Your task to perform on an android device: turn on showing notifications on the lock screen Image 0: 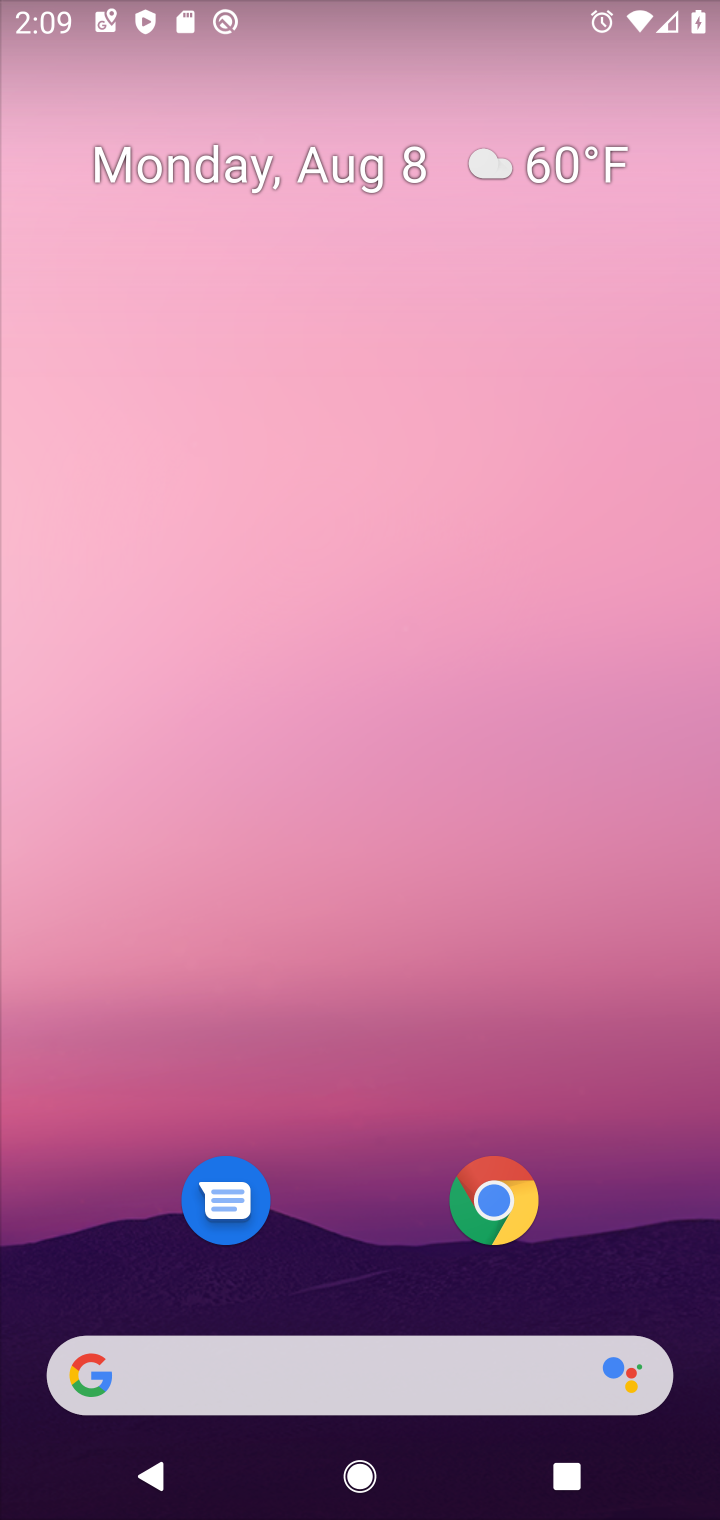
Step 0: press home button
Your task to perform on an android device: turn on showing notifications on the lock screen Image 1: 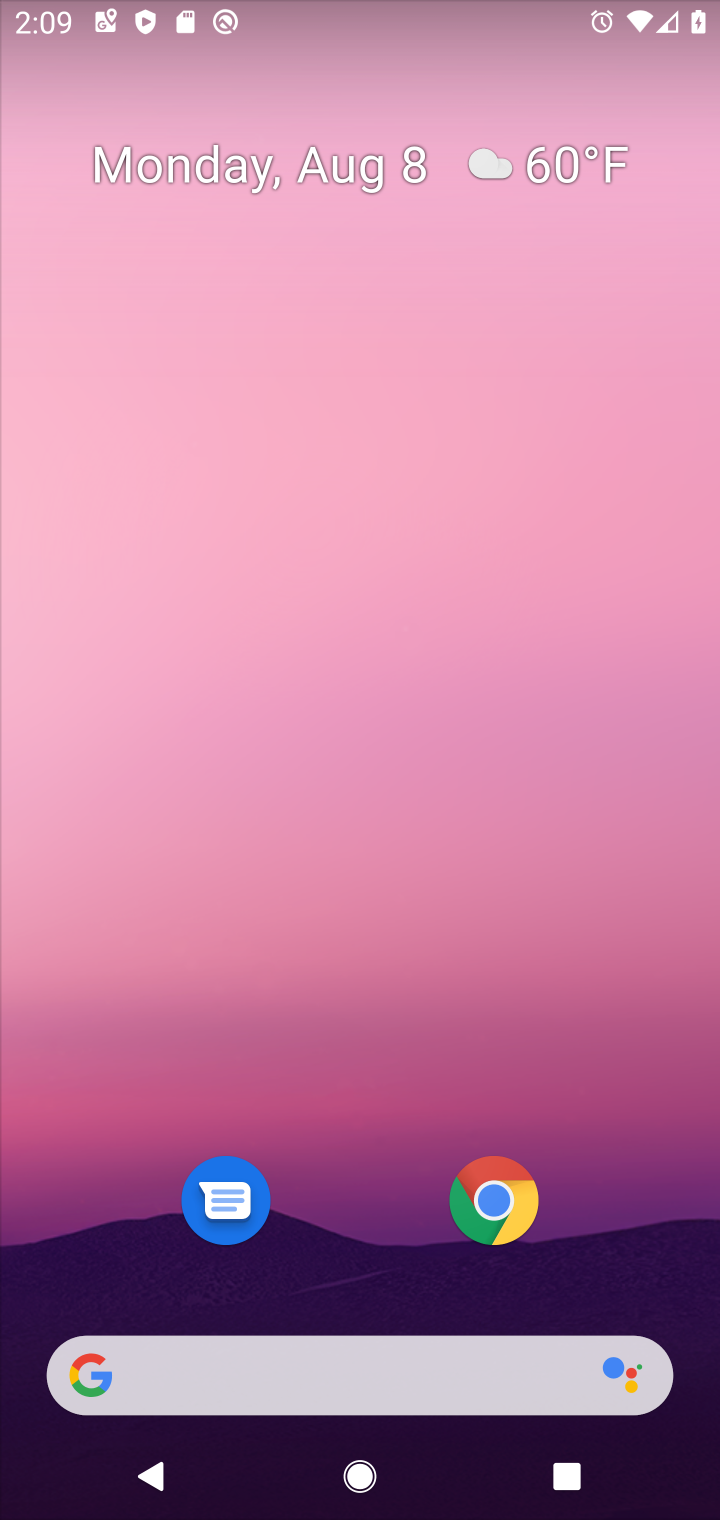
Step 1: drag from (374, 1132) to (465, 71)
Your task to perform on an android device: turn on showing notifications on the lock screen Image 2: 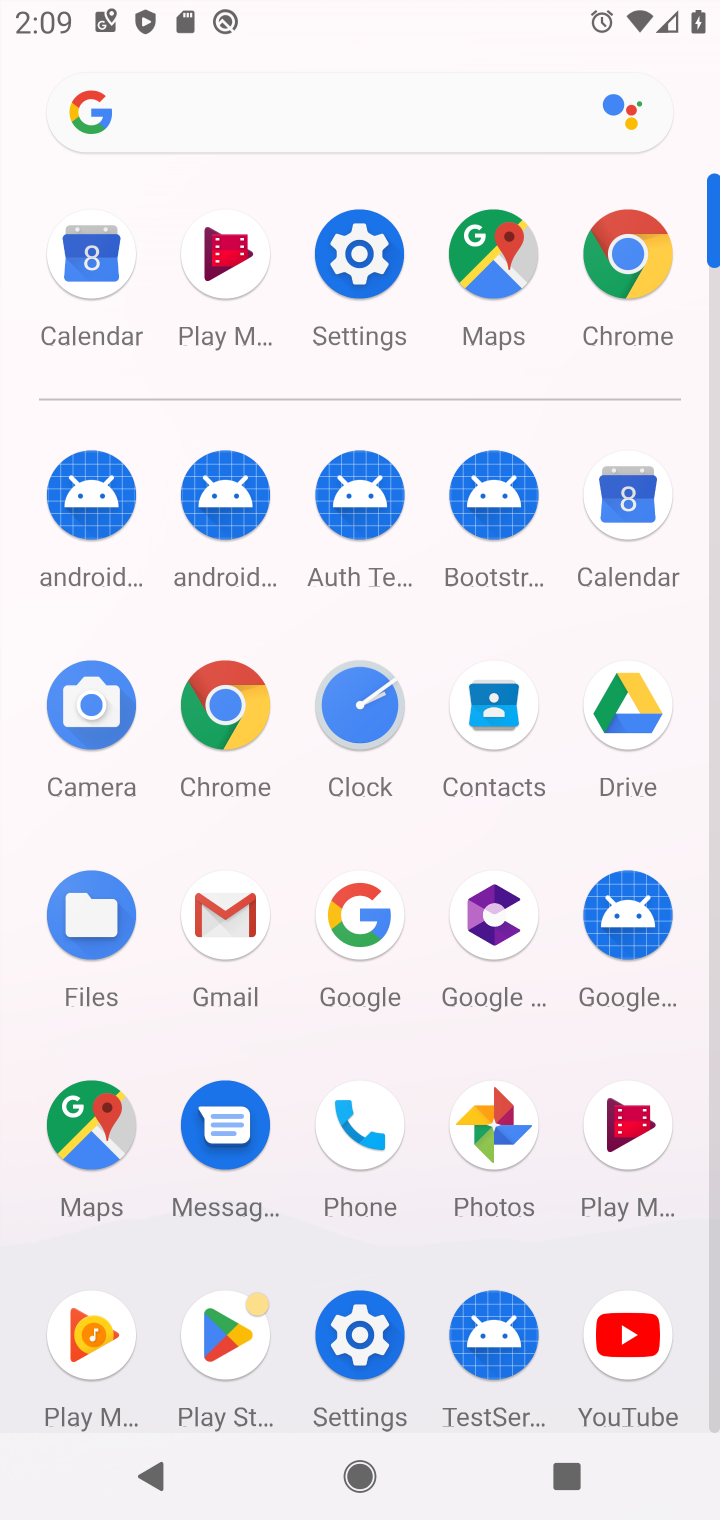
Step 2: click (356, 1321)
Your task to perform on an android device: turn on showing notifications on the lock screen Image 3: 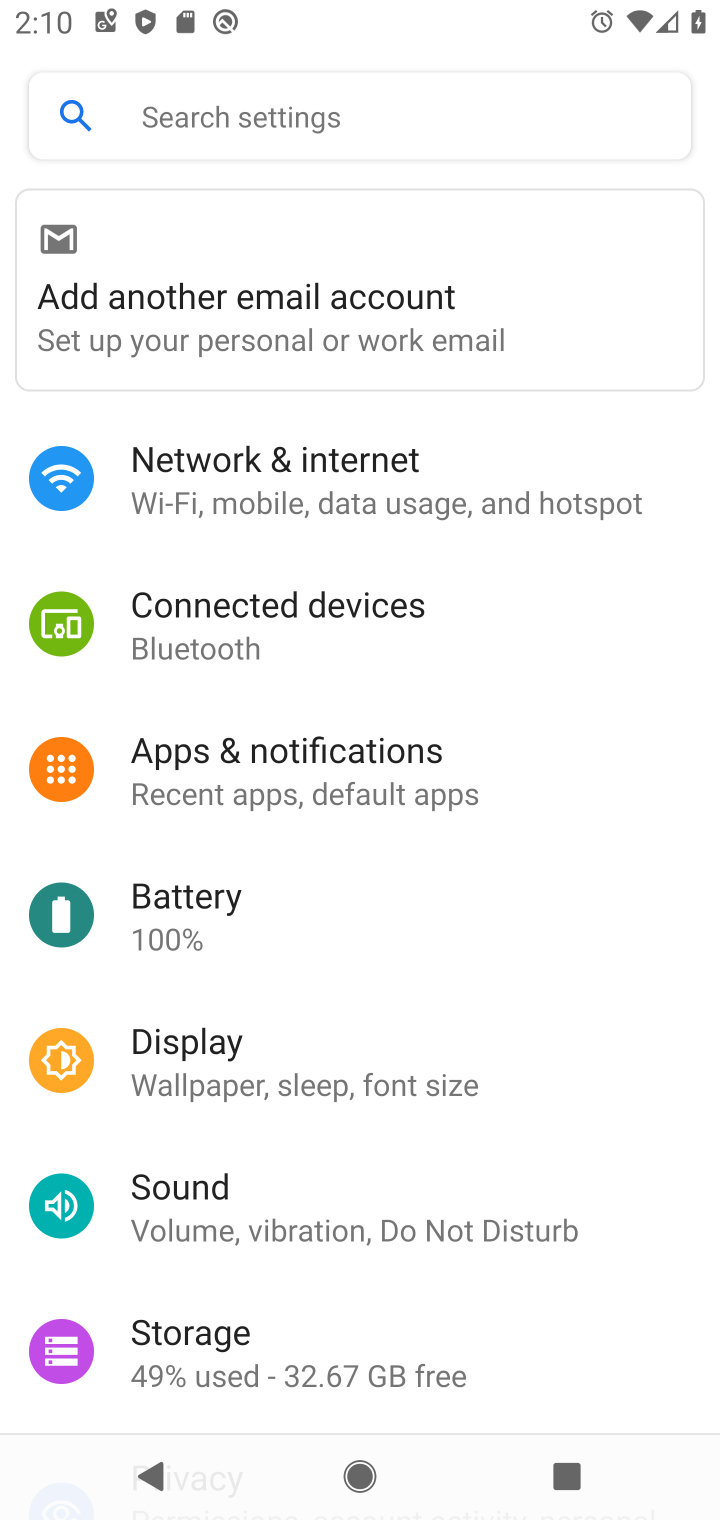
Step 3: click (369, 755)
Your task to perform on an android device: turn on showing notifications on the lock screen Image 4: 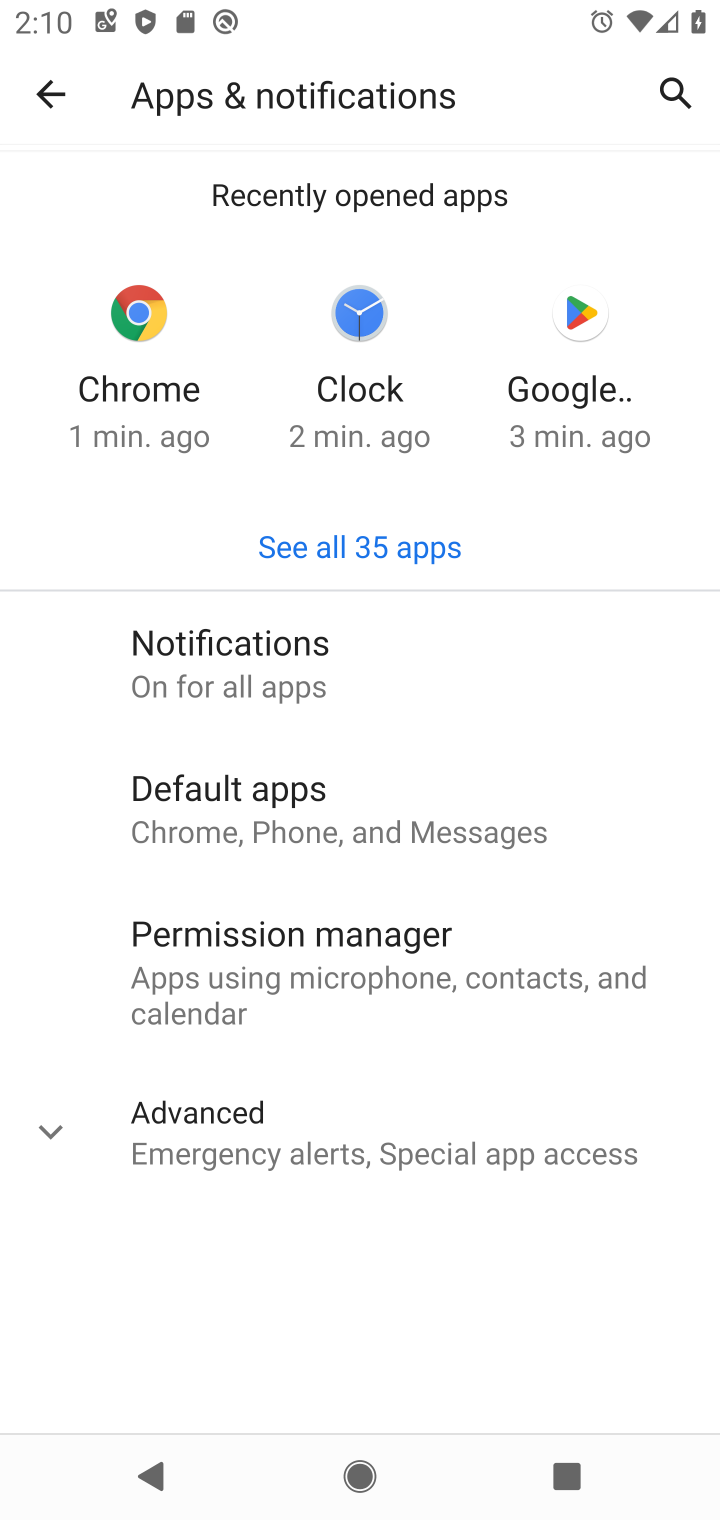
Step 4: click (362, 653)
Your task to perform on an android device: turn on showing notifications on the lock screen Image 5: 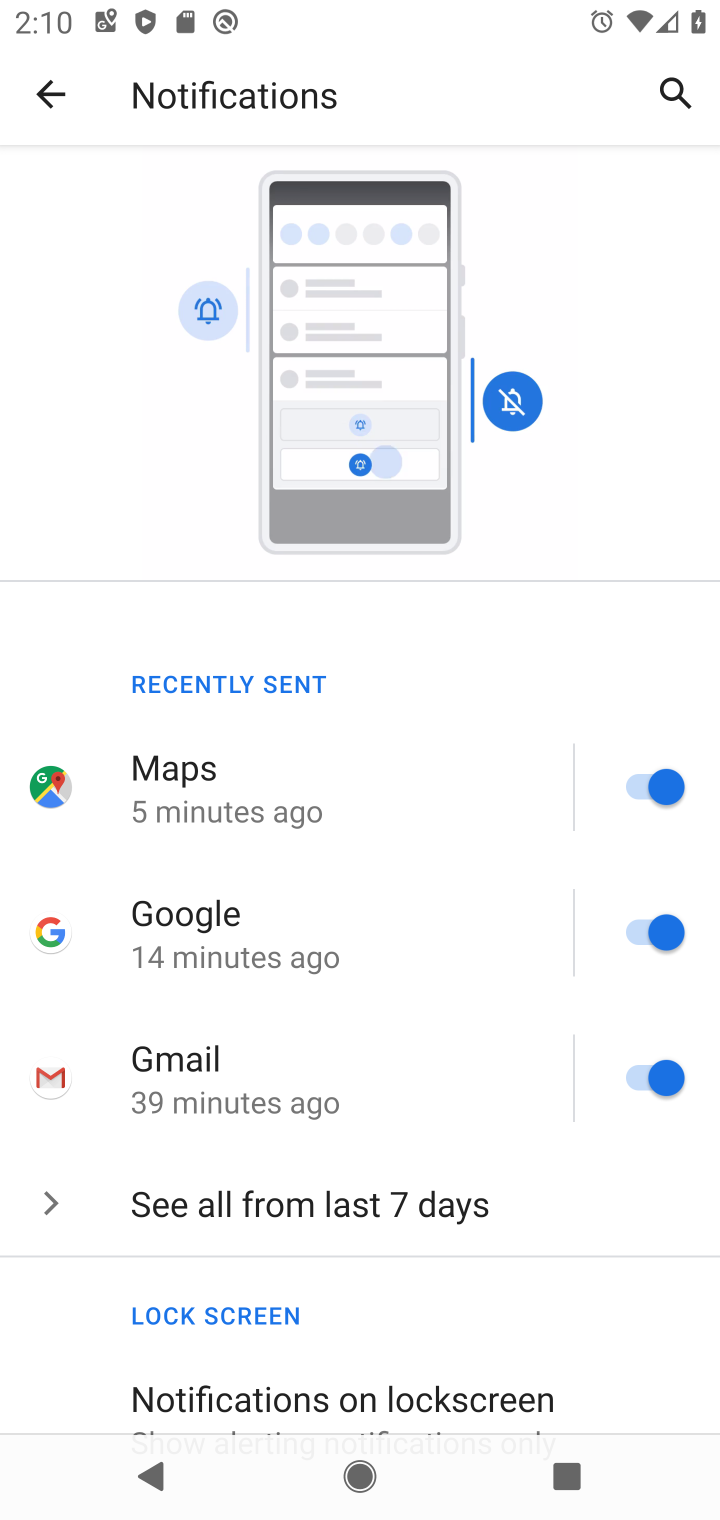
Step 5: click (500, 1374)
Your task to perform on an android device: turn on showing notifications on the lock screen Image 6: 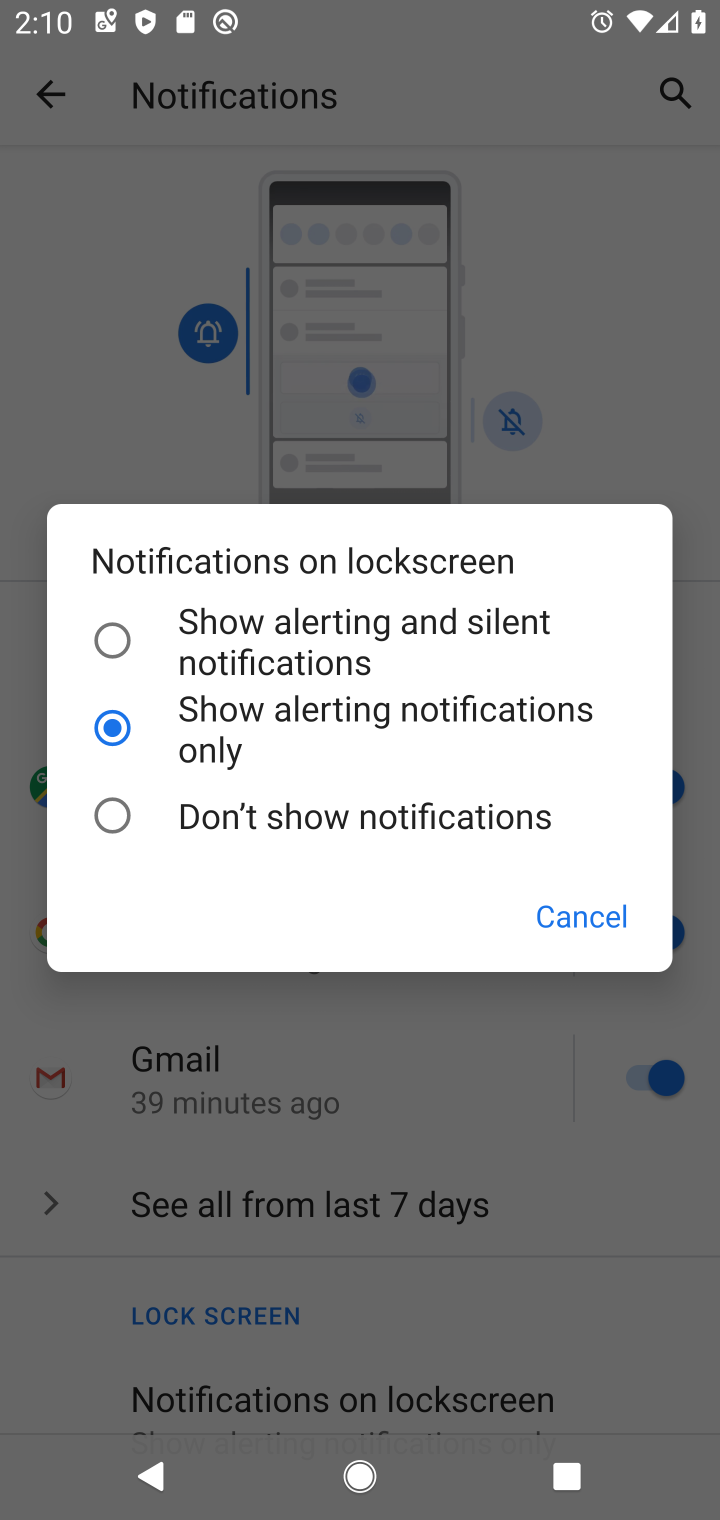
Step 6: click (114, 611)
Your task to perform on an android device: turn on showing notifications on the lock screen Image 7: 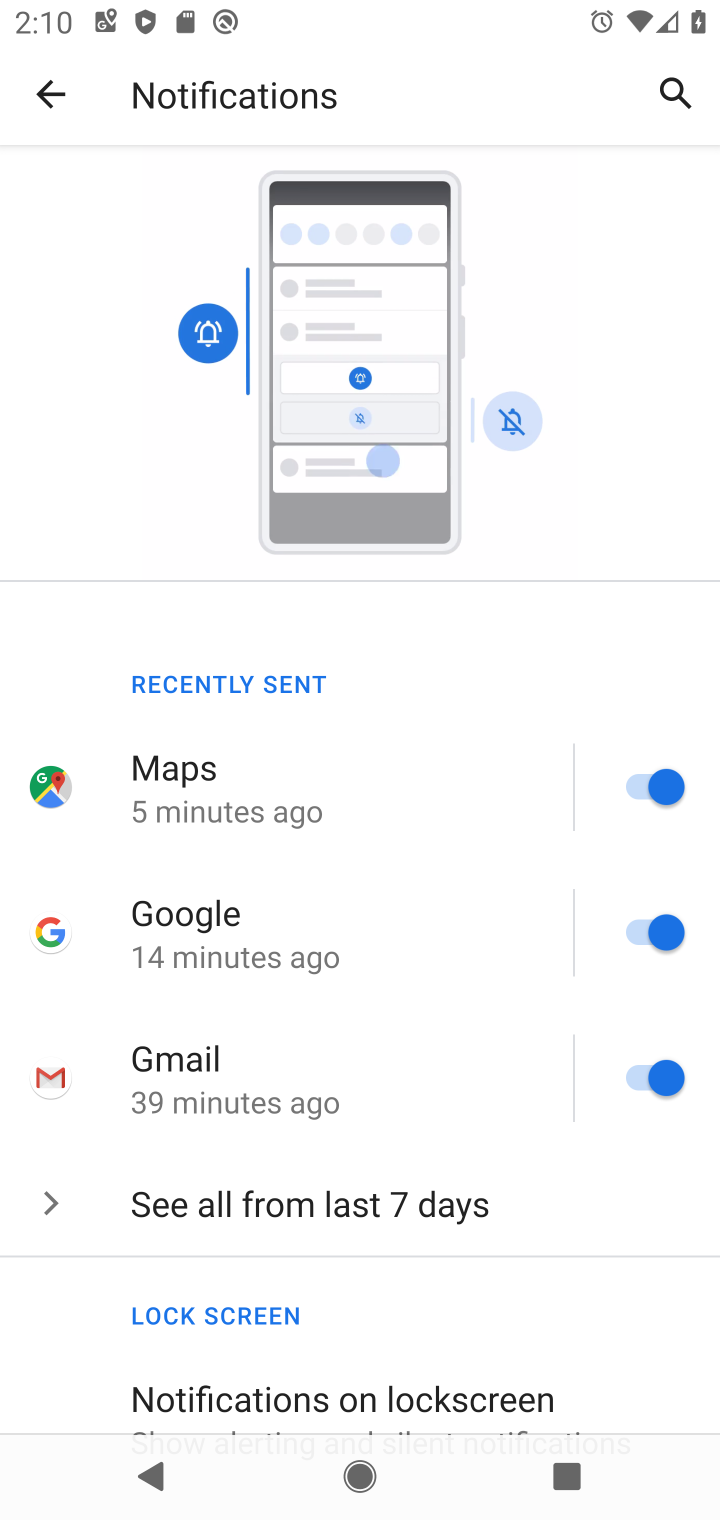
Step 7: task complete